Your task to perform on an android device: See recent photos Image 0: 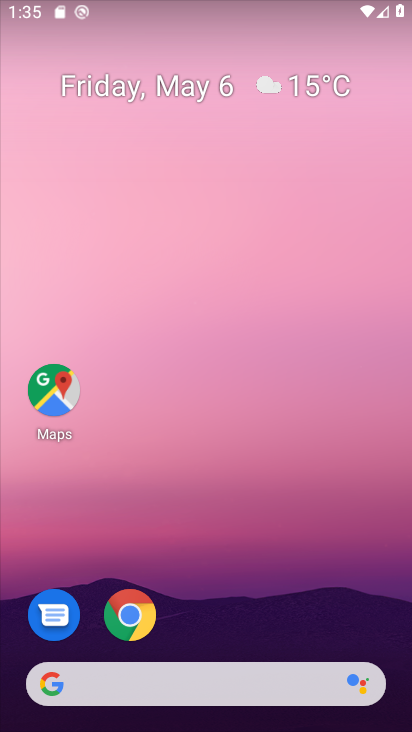
Step 0: drag from (276, 623) to (304, 183)
Your task to perform on an android device: See recent photos Image 1: 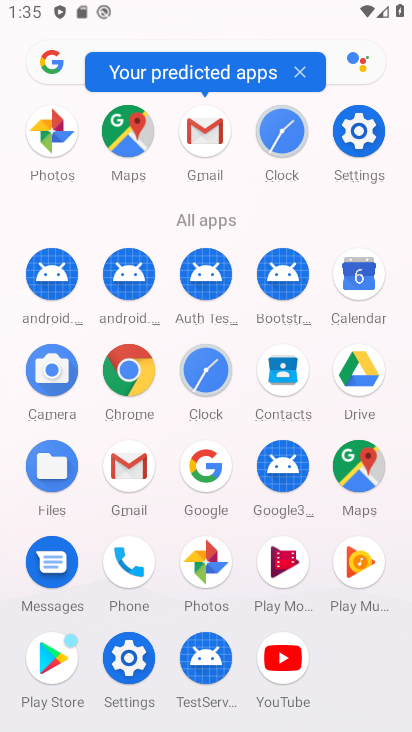
Step 1: click (201, 565)
Your task to perform on an android device: See recent photos Image 2: 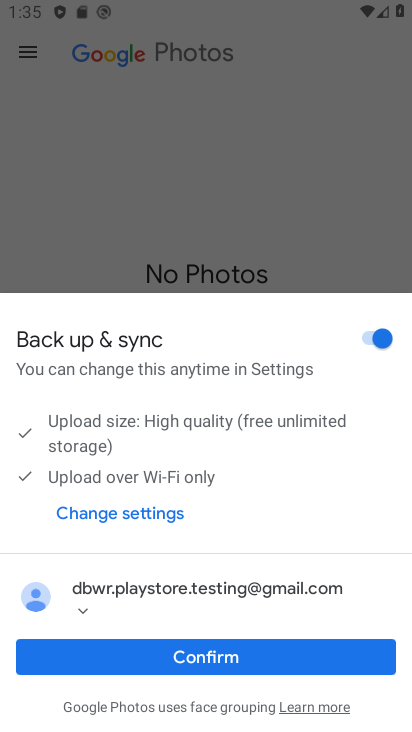
Step 2: click (254, 660)
Your task to perform on an android device: See recent photos Image 3: 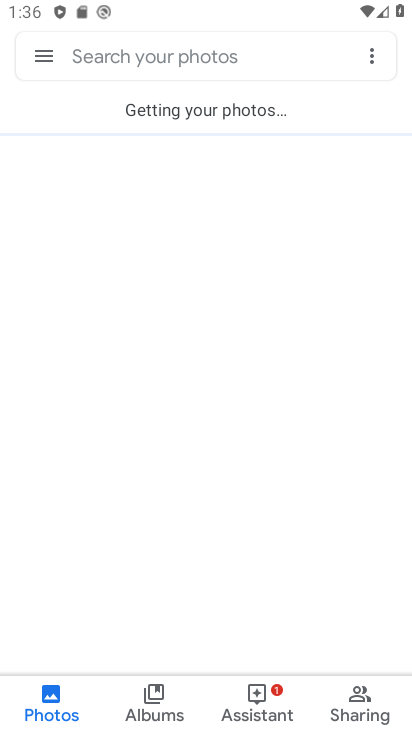
Step 3: click (53, 697)
Your task to perform on an android device: See recent photos Image 4: 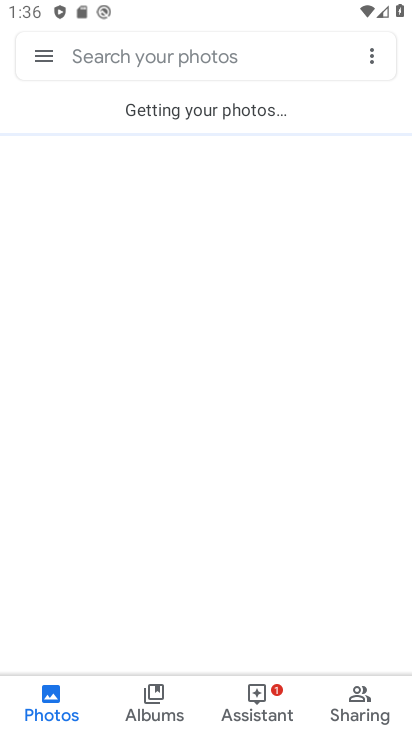
Step 4: click (147, 705)
Your task to perform on an android device: See recent photos Image 5: 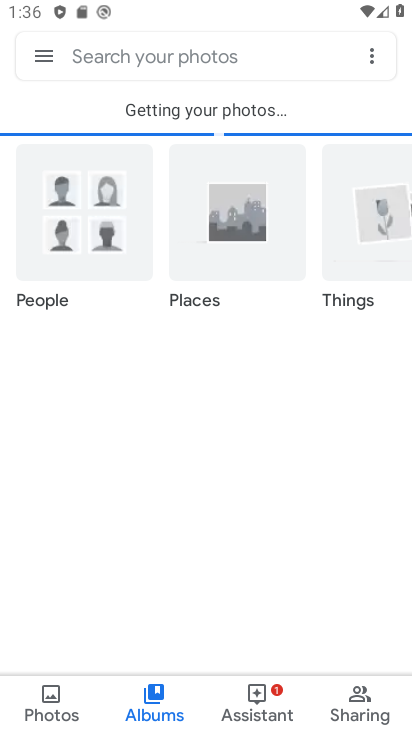
Step 5: click (56, 693)
Your task to perform on an android device: See recent photos Image 6: 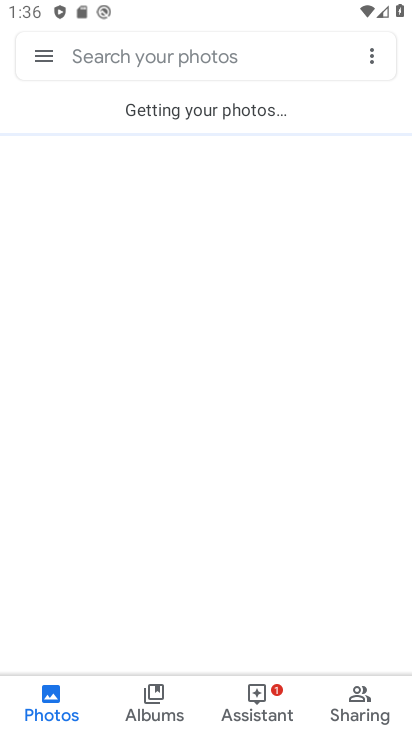
Step 6: click (162, 710)
Your task to perform on an android device: See recent photos Image 7: 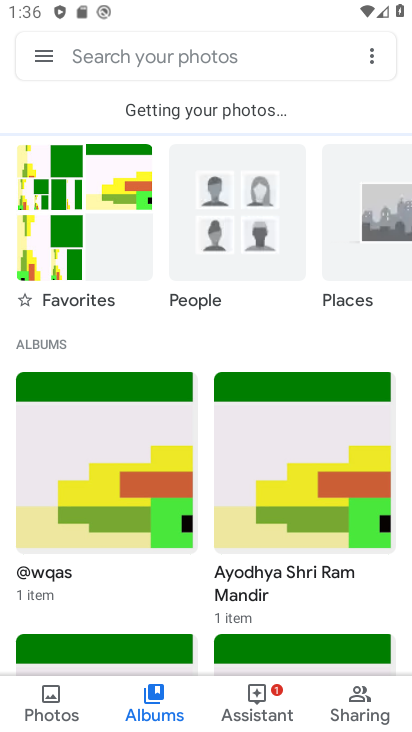
Step 7: click (59, 708)
Your task to perform on an android device: See recent photos Image 8: 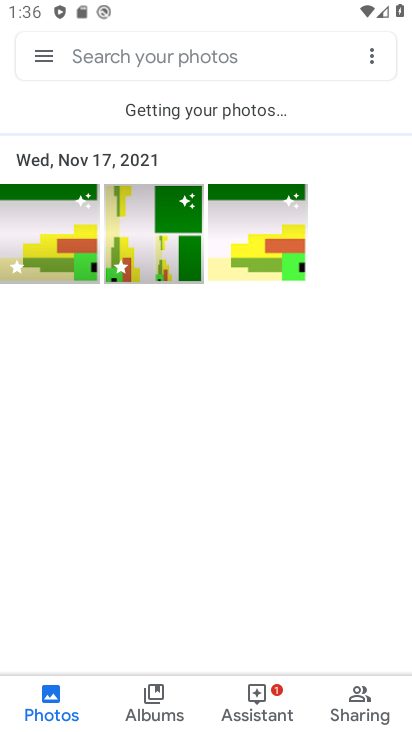
Step 8: task complete